Your task to perform on an android device: What's on my calendar tomorrow? Image 0: 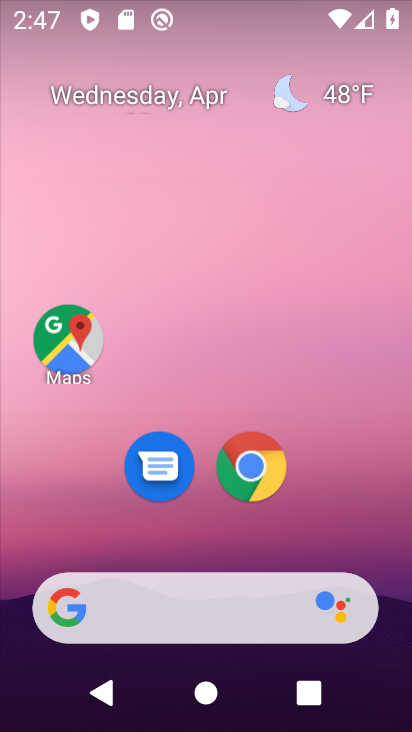
Step 0: drag from (332, 508) to (323, 100)
Your task to perform on an android device: What's on my calendar tomorrow? Image 1: 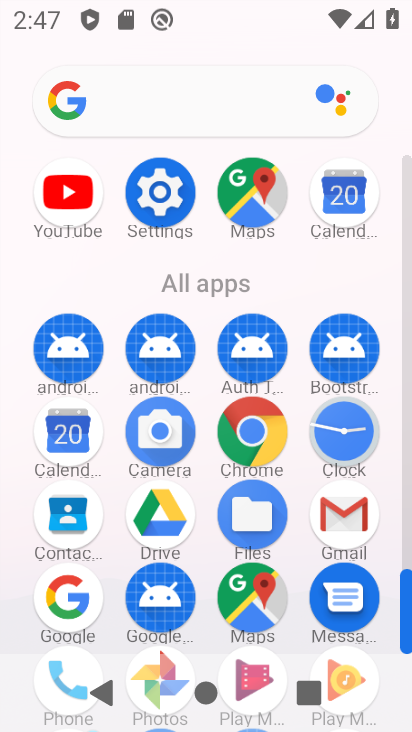
Step 1: click (354, 189)
Your task to perform on an android device: What's on my calendar tomorrow? Image 2: 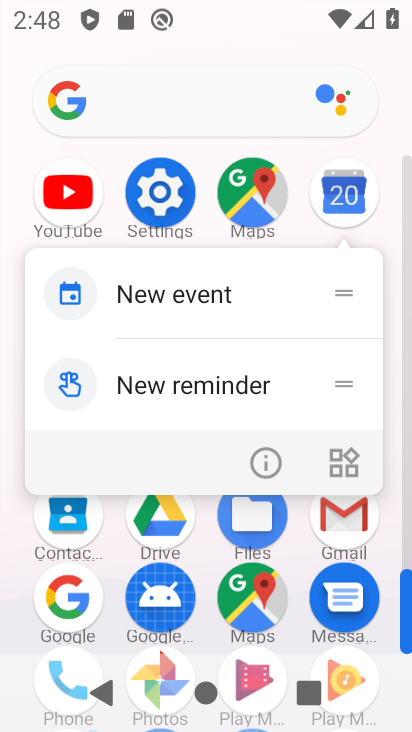
Step 2: click (354, 189)
Your task to perform on an android device: What's on my calendar tomorrow? Image 3: 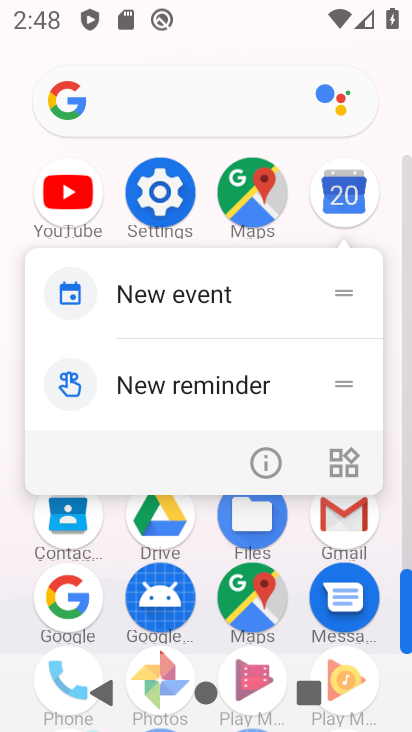
Step 3: click (354, 190)
Your task to perform on an android device: What's on my calendar tomorrow? Image 4: 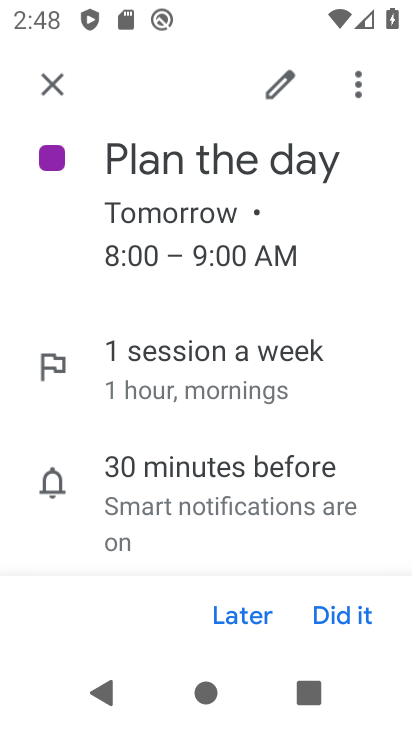
Step 4: drag from (224, 429) to (203, 136)
Your task to perform on an android device: What's on my calendar tomorrow? Image 5: 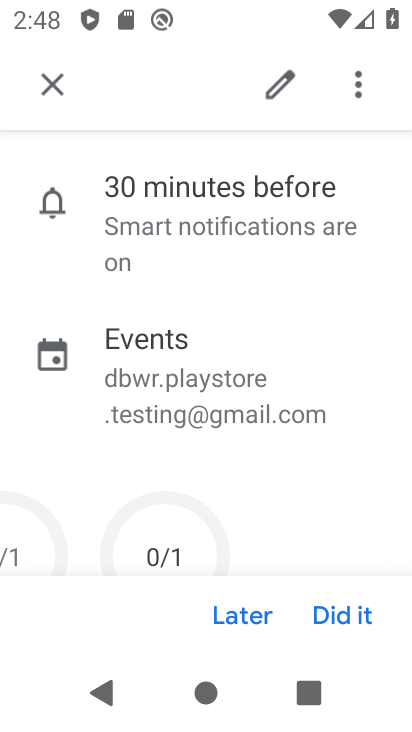
Step 5: drag from (264, 457) to (247, 205)
Your task to perform on an android device: What's on my calendar tomorrow? Image 6: 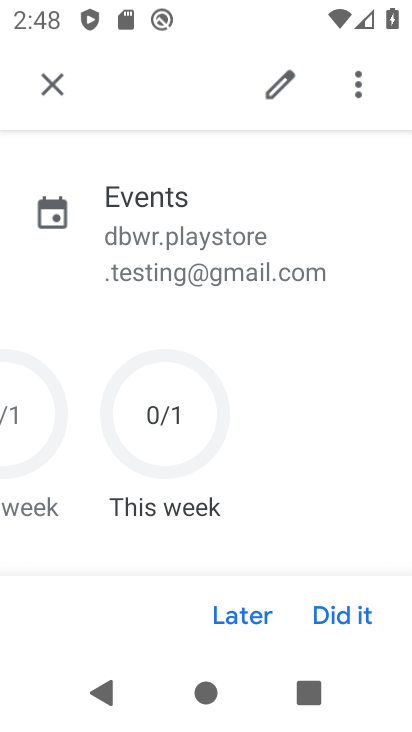
Step 6: drag from (259, 189) to (302, 464)
Your task to perform on an android device: What's on my calendar tomorrow? Image 7: 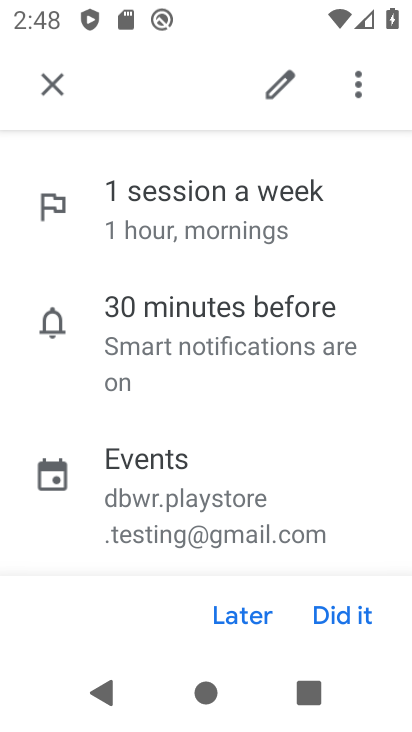
Step 7: drag from (281, 205) to (289, 347)
Your task to perform on an android device: What's on my calendar tomorrow? Image 8: 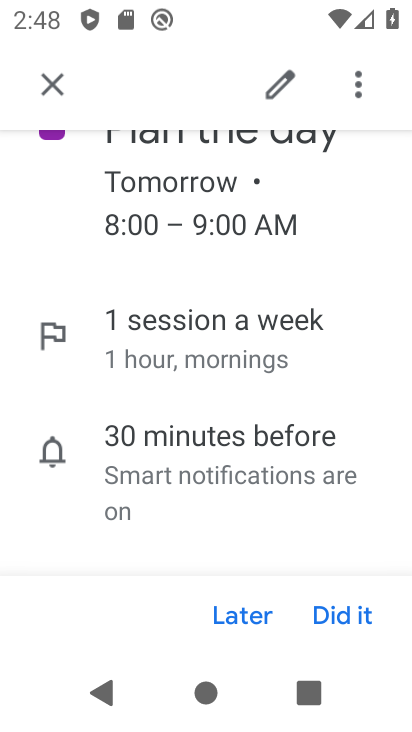
Step 8: drag from (200, 177) to (227, 487)
Your task to perform on an android device: What's on my calendar tomorrow? Image 9: 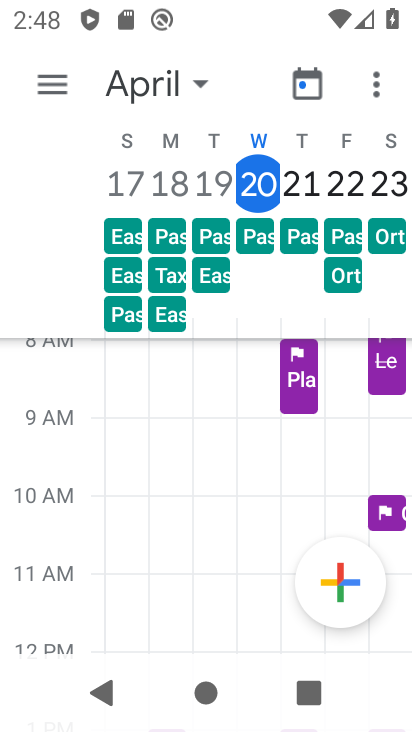
Step 9: click (306, 379)
Your task to perform on an android device: What's on my calendar tomorrow? Image 10: 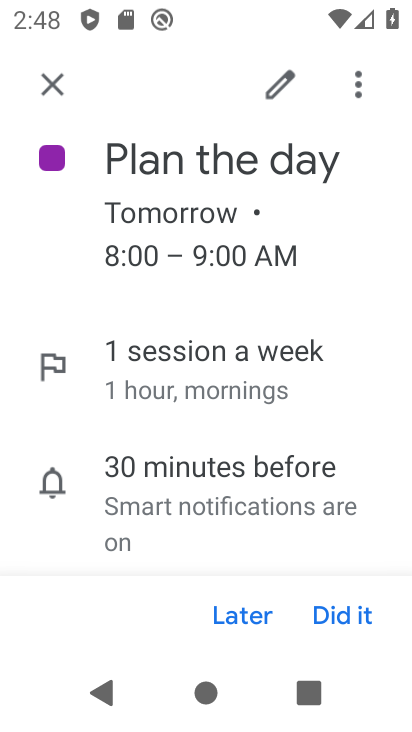
Step 10: task complete